Your task to perform on an android device: open app "PlayWell" (install if not already installed) Image 0: 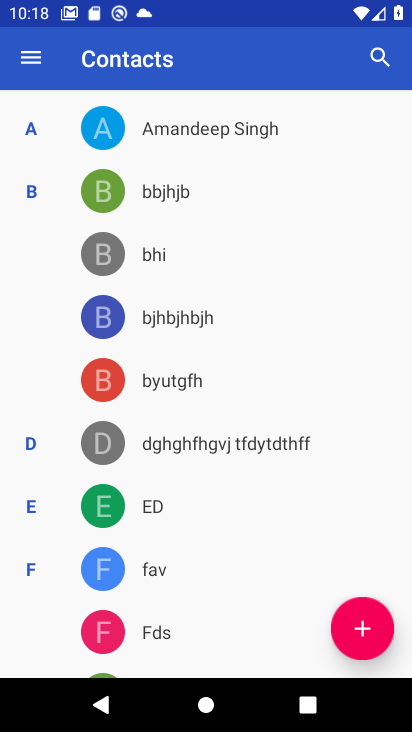
Step 0: press back button
Your task to perform on an android device: open app "PlayWell" (install if not already installed) Image 1: 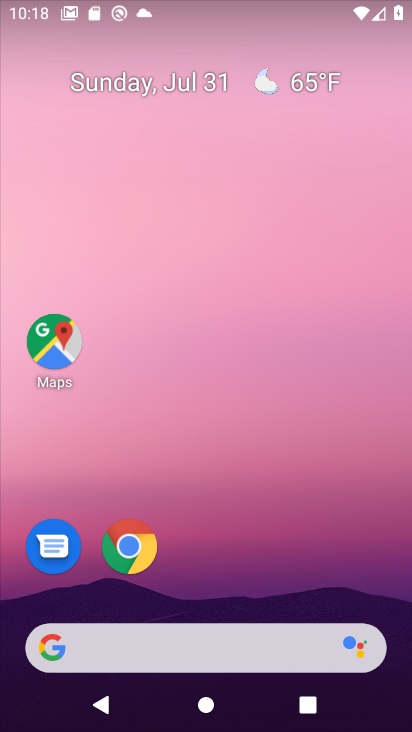
Step 1: drag from (225, 554) to (82, 45)
Your task to perform on an android device: open app "PlayWell" (install if not already installed) Image 2: 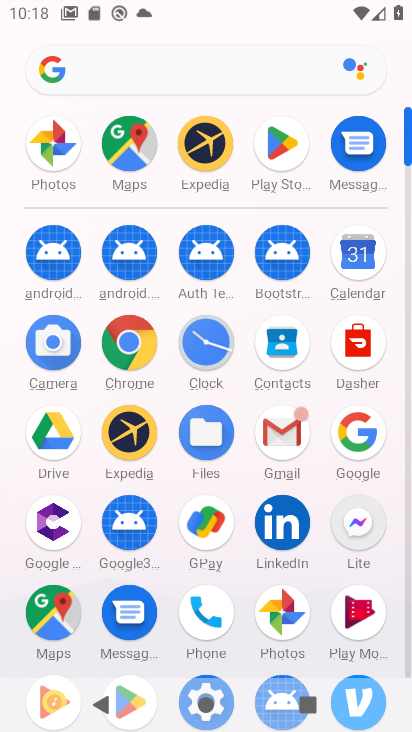
Step 2: click (283, 236)
Your task to perform on an android device: open app "PlayWell" (install if not already installed) Image 3: 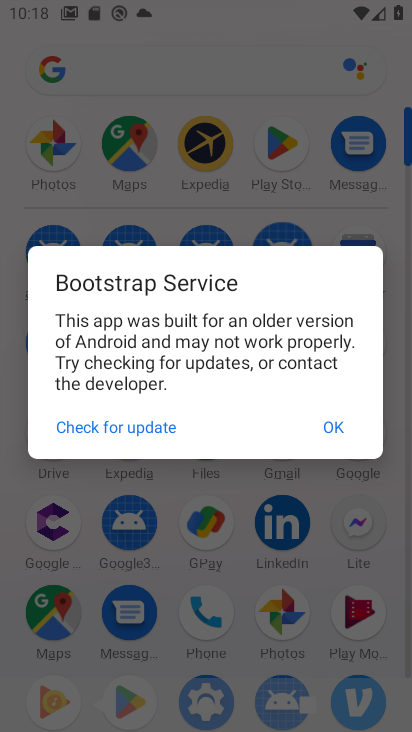
Step 3: click (334, 435)
Your task to perform on an android device: open app "PlayWell" (install if not already installed) Image 4: 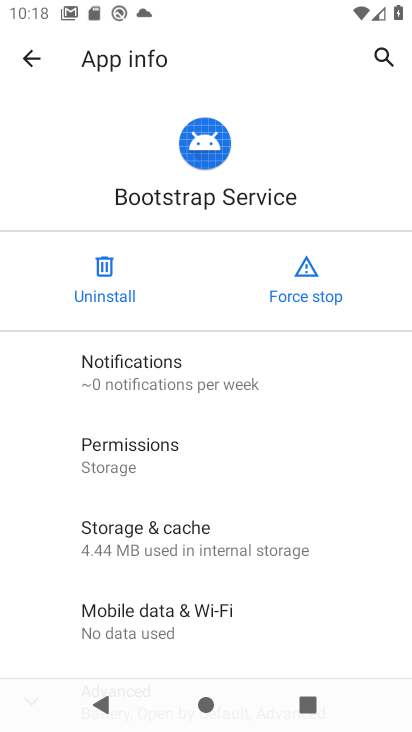
Step 4: press back button
Your task to perform on an android device: open app "PlayWell" (install if not already installed) Image 5: 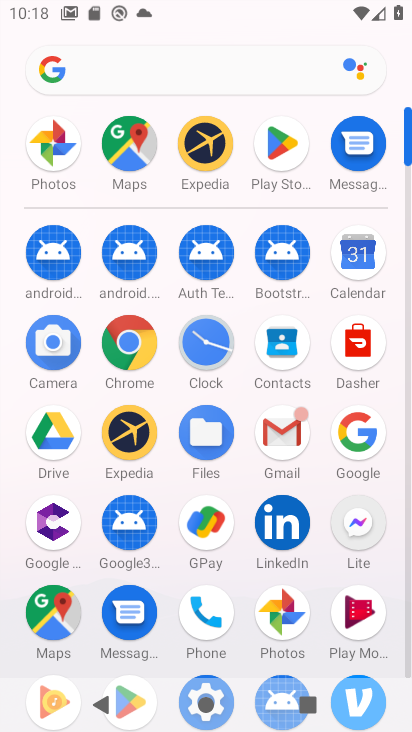
Step 5: click (289, 150)
Your task to perform on an android device: open app "PlayWell" (install if not already installed) Image 6: 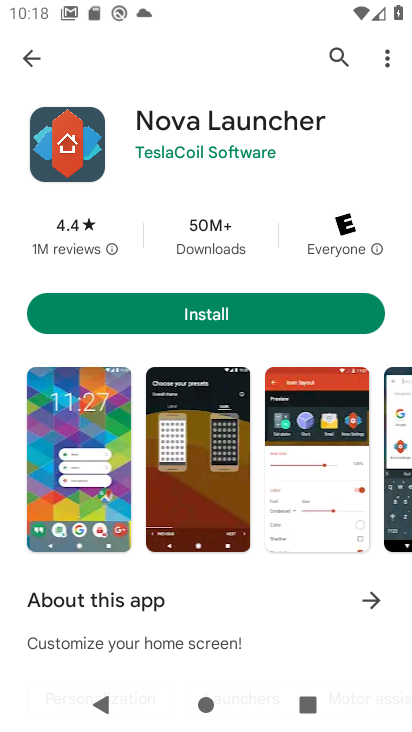
Step 6: click (318, 52)
Your task to perform on an android device: open app "PlayWell" (install if not already installed) Image 7: 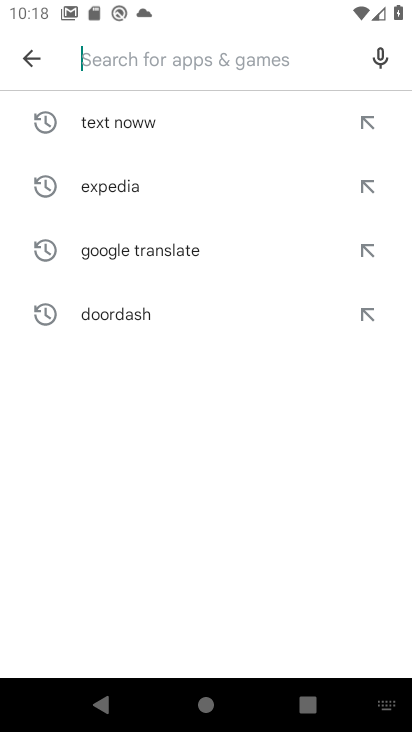
Step 7: click (146, 48)
Your task to perform on an android device: open app "PlayWell" (install if not already installed) Image 8: 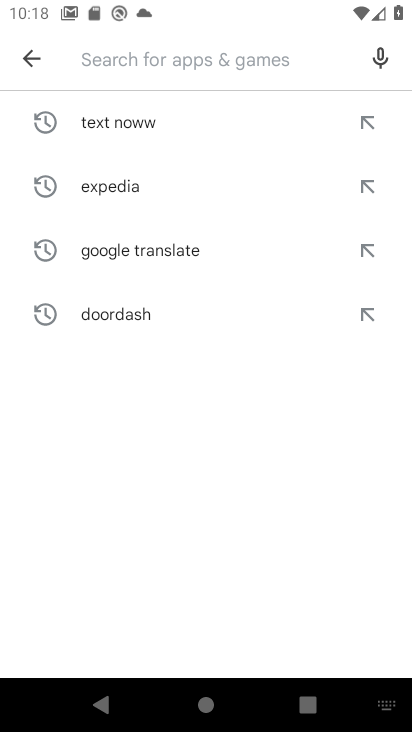
Step 8: type "play well"
Your task to perform on an android device: open app "PlayWell" (install if not already installed) Image 9: 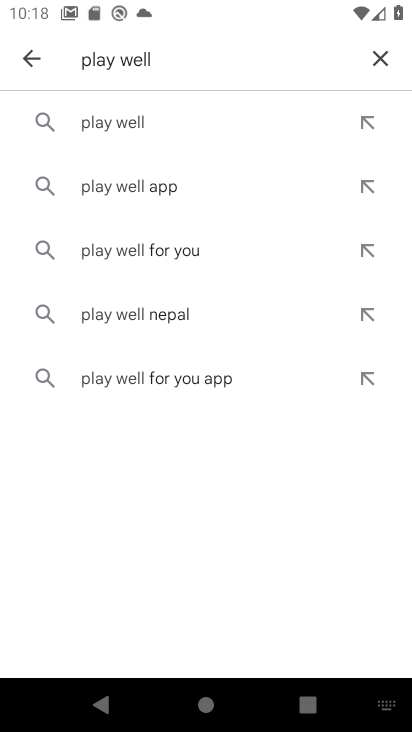
Step 9: click (116, 108)
Your task to perform on an android device: open app "PlayWell" (install if not already installed) Image 10: 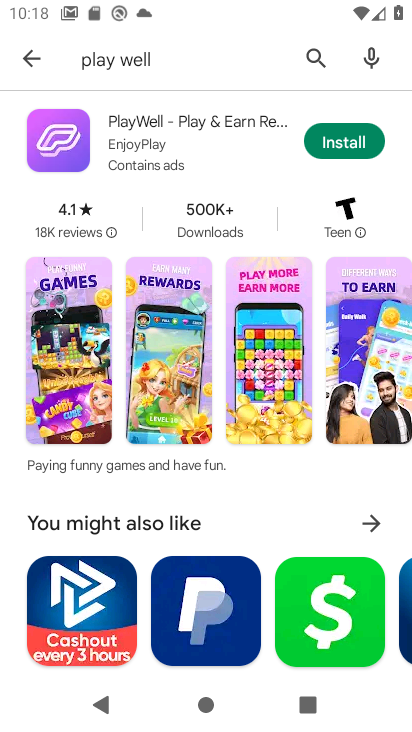
Step 10: click (345, 140)
Your task to perform on an android device: open app "PlayWell" (install if not already installed) Image 11: 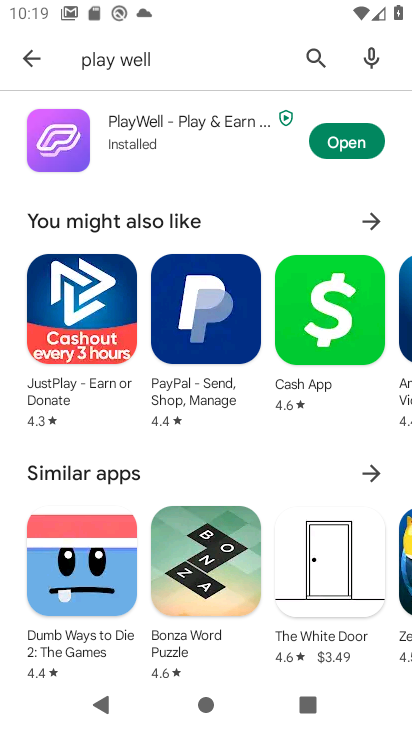
Step 11: click (307, 144)
Your task to perform on an android device: open app "PlayWell" (install if not already installed) Image 12: 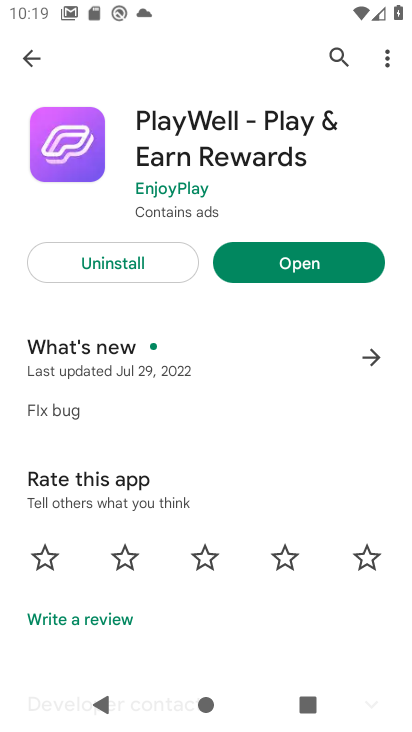
Step 12: task complete